Your task to perform on an android device: turn smart compose on in the gmail app Image 0: 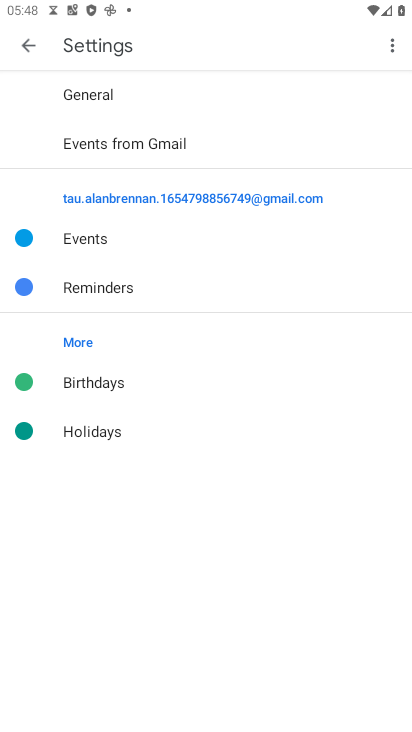
Step 0: press home button
Your task to perform on an android device: turn smart compose on in the gmail app Image 1: 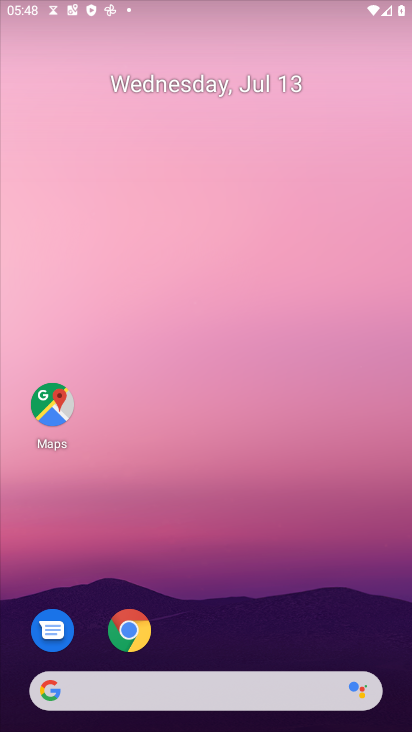
Step 1: drag from (343, 689) to (364, 24)
Your task to perform on an android device: turn smart compose on in the gmail app Image 2: 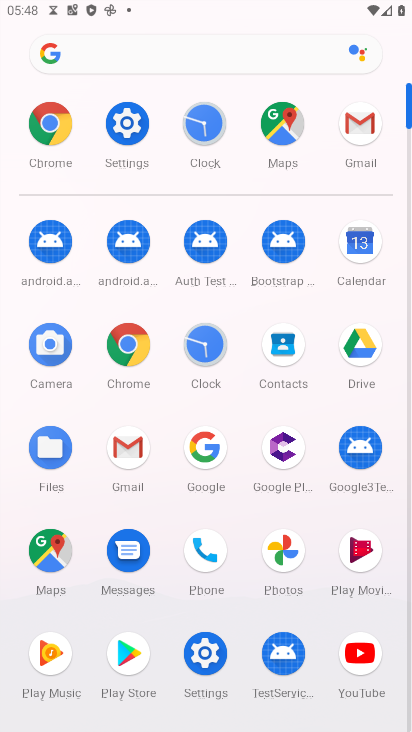
Step 2: click (136, 457)
Your task to perform on an android device: turn smart compose on in the gmail app Image 3: 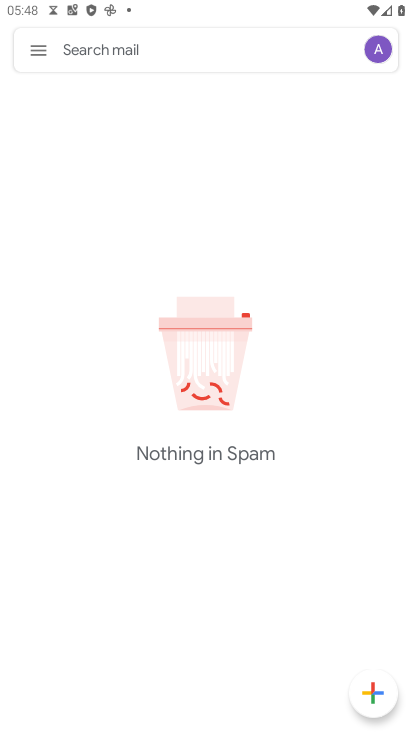
Step 3: click (32, 44)
Your task to perform on an android device: turn smart compose on in the gmail app Image 4: 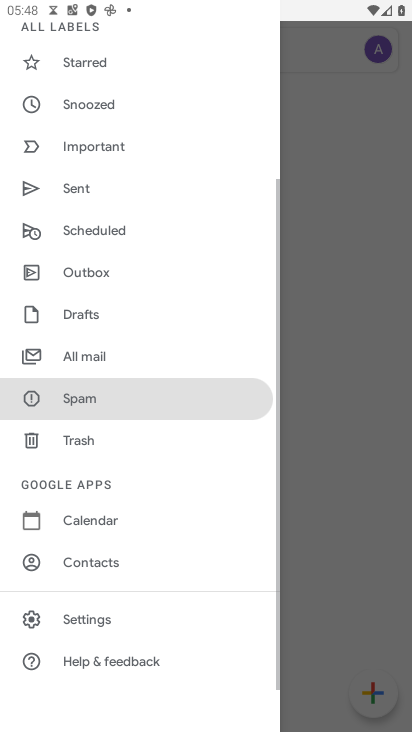
Step 4: click (102, 611)
Your task to perform on an android device: turn smart compose on in the gmail app Image 5: 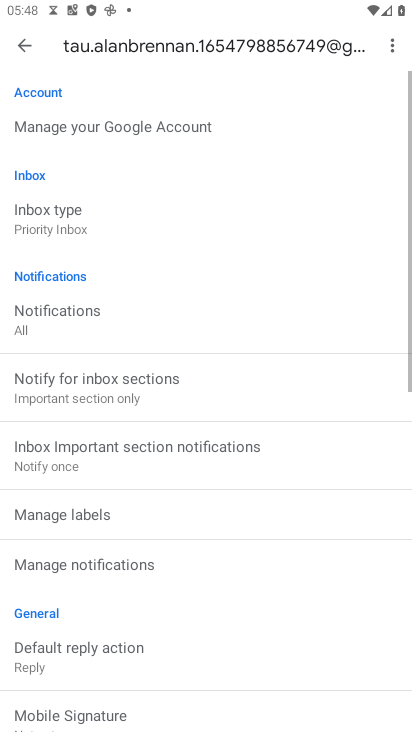
Step 5: task complete